Your task to perform on an android device: toggle show notifications on the lock screen Image 0: 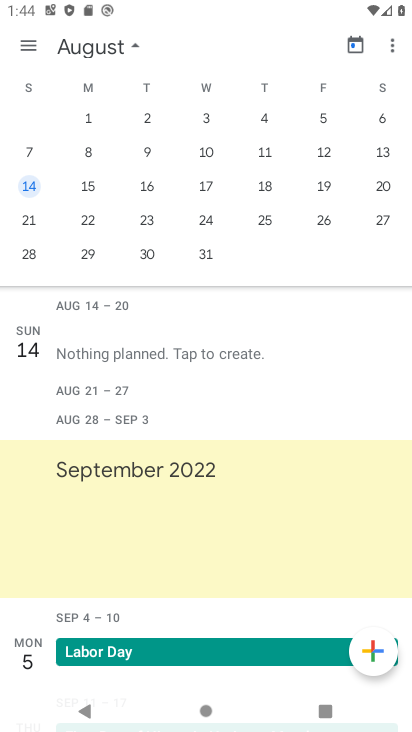
Step 0: press home button
Your task to perform on an android device: toggle show notifications on the lock screen Image 1: 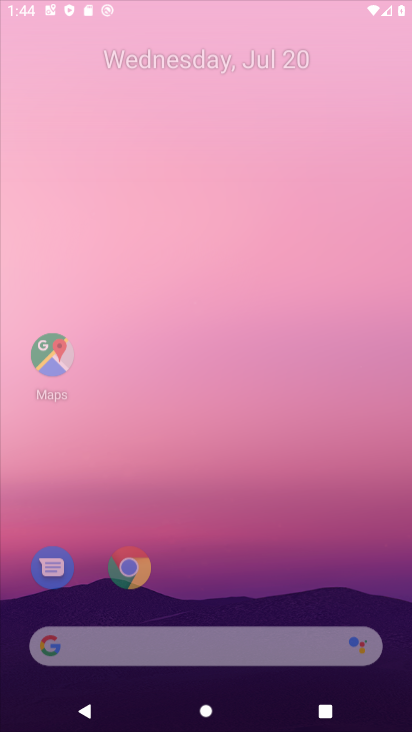
Step 1: drag from (396, 668) to (245, 66)
Your task to perform on an android device: toggle show notifications on the lock screen Image 2: 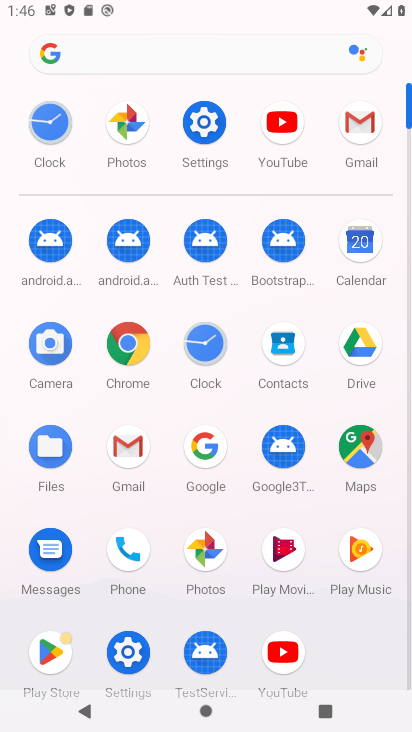
Step 2: click (143, 652)
Your task to perform on an android device: toggle show notifications on the lock screen Image 3: 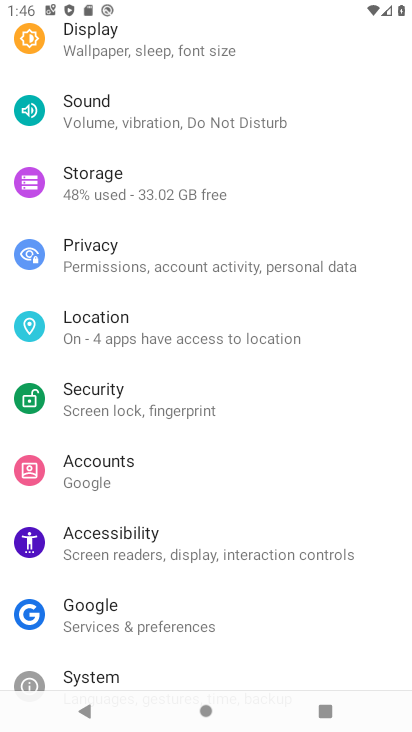
Step 3: drag from (179, 156) to (172, 565)
Your task to perform on an android device: toggle show notifications on the lock screen Image 4: 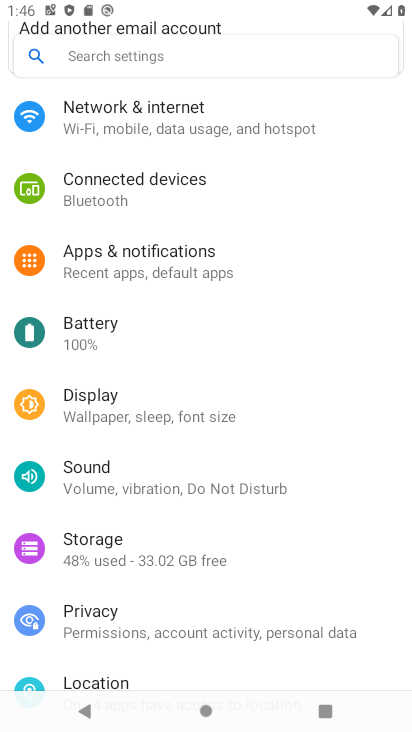
Step 4: click (156, 255)
Your task to perform on an android device: toggle show notifications on the lock screen Image 5: 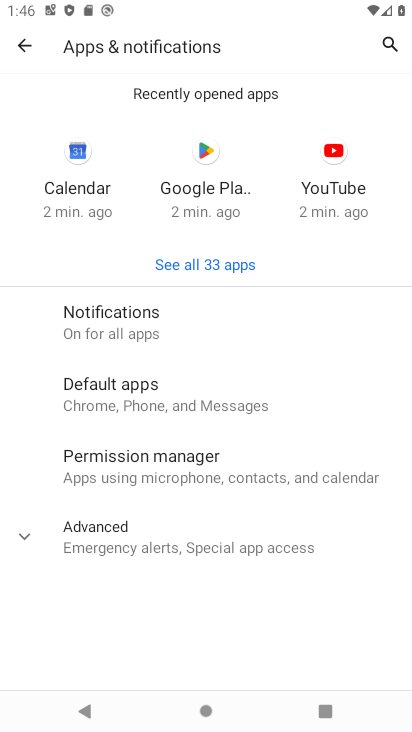
Step 5: click (106, 313)
Your task to perform on an android device: toggle show notifications on the lock screen Image 6: 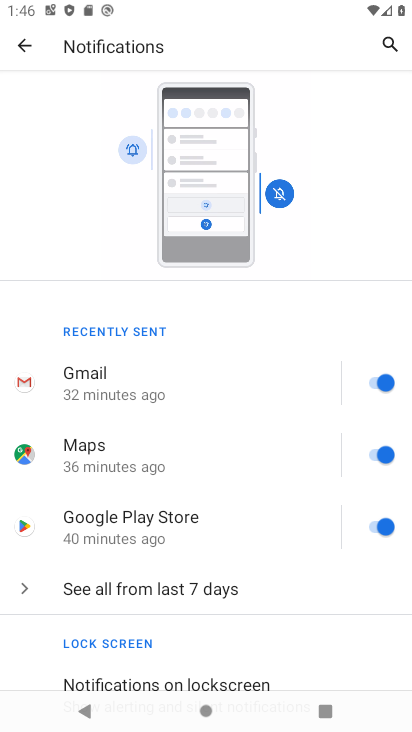
Step 6: click (189, 682)
Your task to perform on an android device: toggle show notifications on the lock screen Image 7: 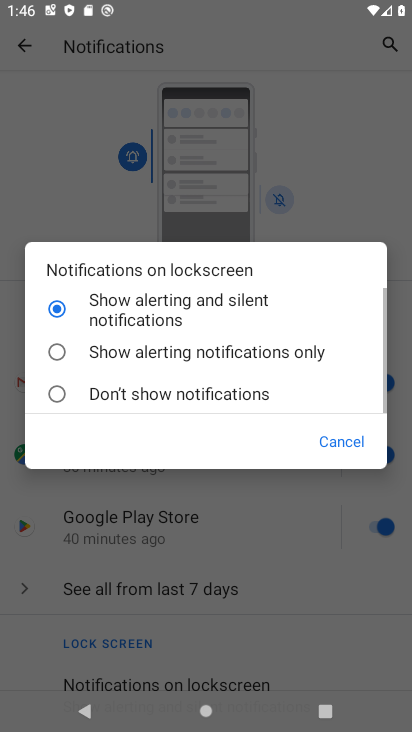
Step 7: click (51, 395)
Your task to perform on an android device: toggle show notifications on the lock screen Image 8: 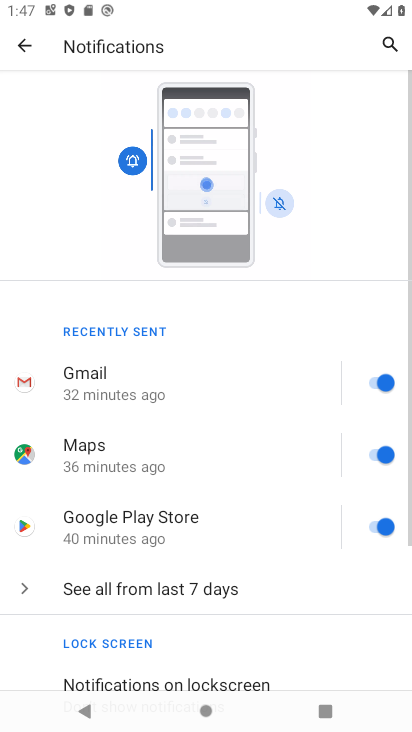
Step 8: task complete